Your task to perform on an android device: turn notification dots off Image 0: 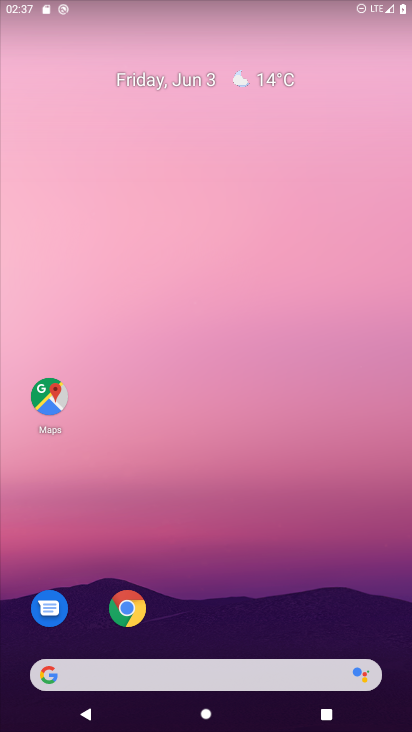
Step 0: drag from (252, 566) to (245, 124)
Your task to perform on an android device: turn notification dots off Image 1: 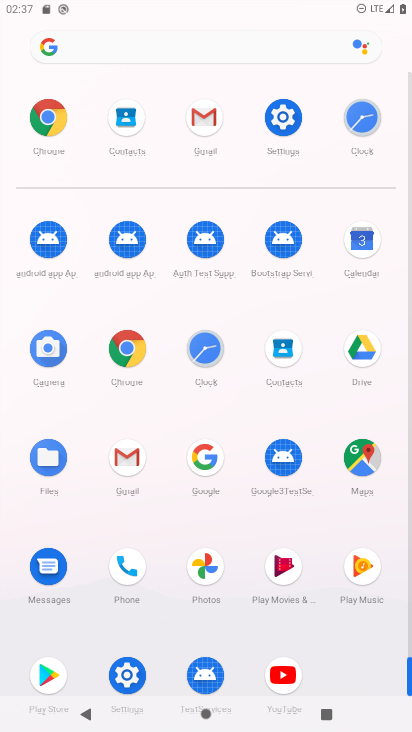
Step 1: click (275, 113)
Your task to perform on an android device: turn notification dots off Image 2: 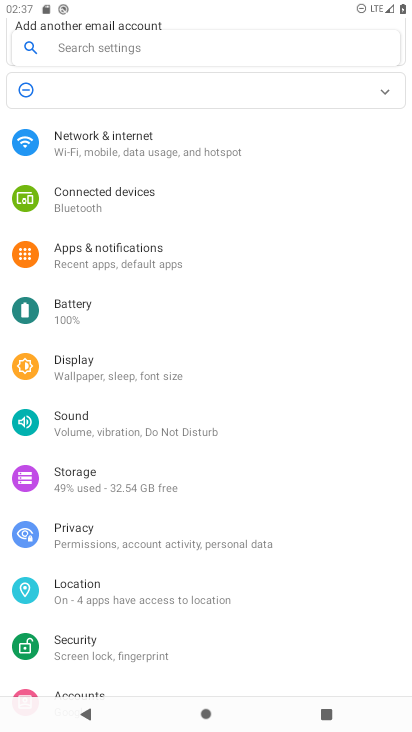
Step 2: click (136, 255)
Your task to perform on an android device: turn notification dots off Image 3: 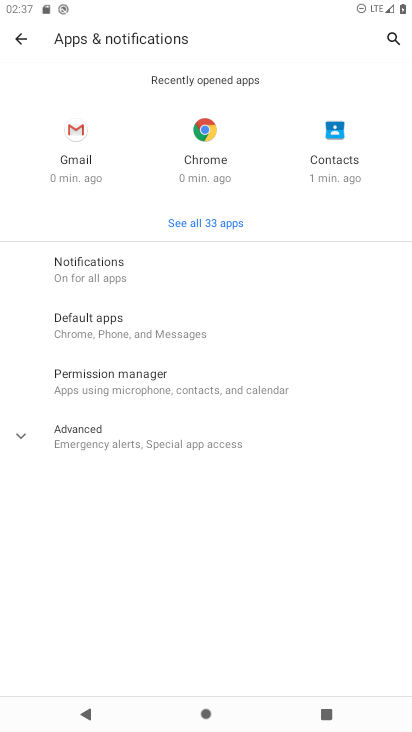
Step 3: click (102, 279)
Your task to perform on an android device: turn notification dots off Image 4: 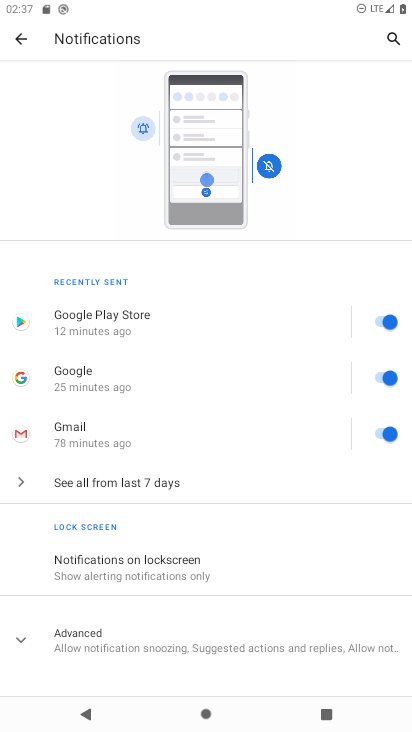
Step 4: click (128, 638)
Your task to perform on an android device: turn notification dots off Image 5: 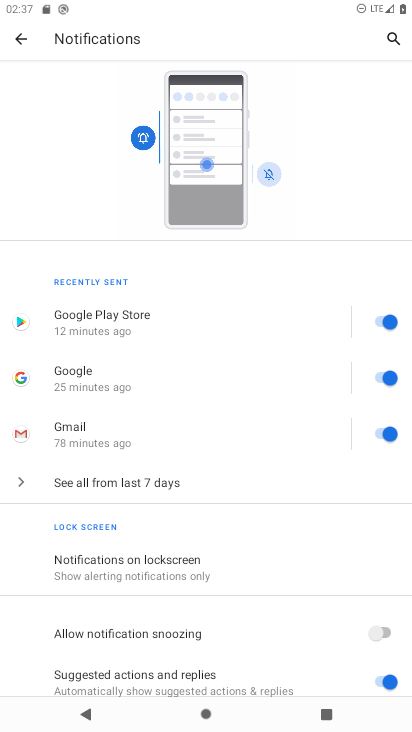
Step 5: drag from (135, 569) to (143, 245)
Your task to perform on an android device: turn notification dots off Image 6: 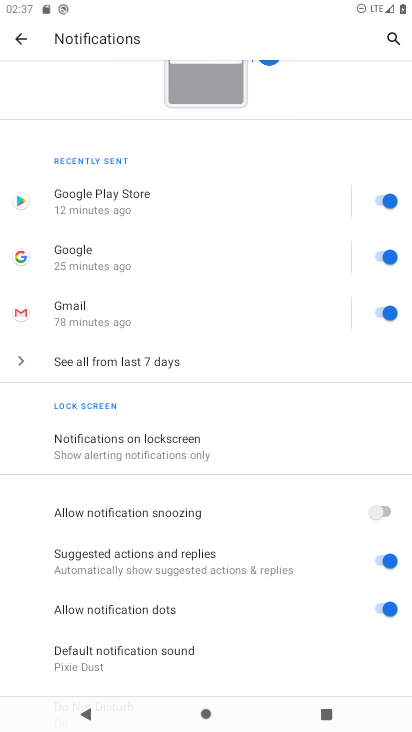
Step 6: click (392, 606)
Your task to perform on an android device: turn notification dots off Image 7: 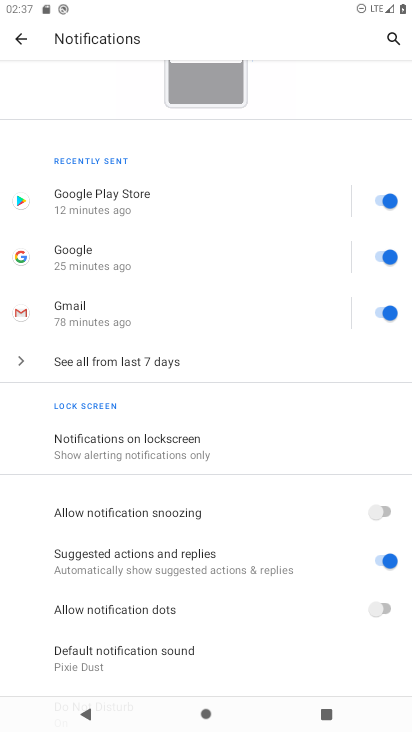
Step 7: task complete